Your task to perform on an android device: Check the weather Image 0: 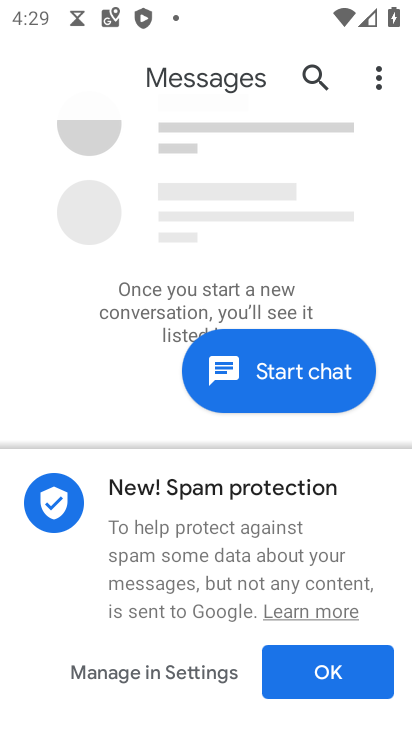
Step 0: press home button
Your task to perform on an android device: Check the weather Image 1: 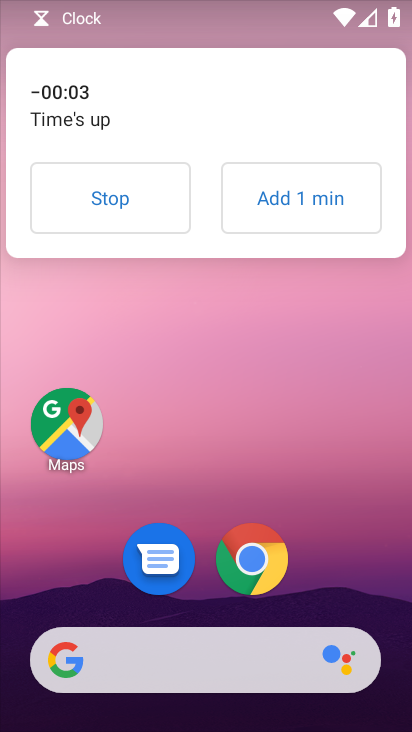
Step 1: click (280, 416)
Your task to perform on an android device: Check the weather Image 2: 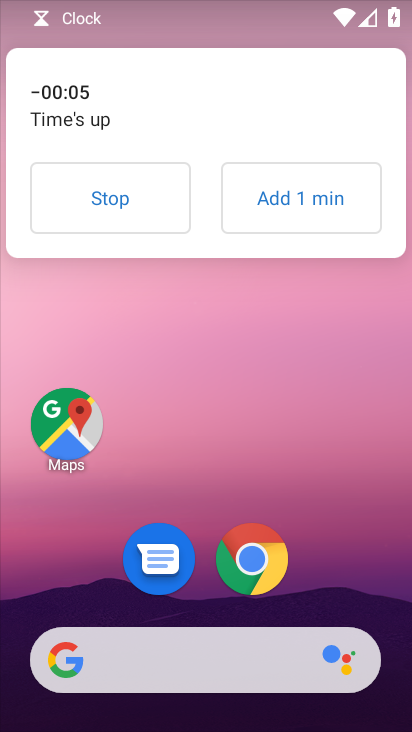
Step 2: click (59, 430)
Your task to perform on an android device: Check the weather Image 3: 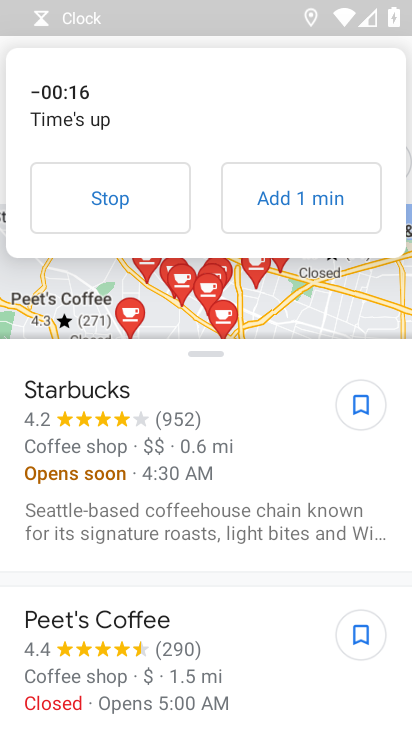
Step 3: click (119, 186)
Your task to perform on an android device: Check the weather Image 4: 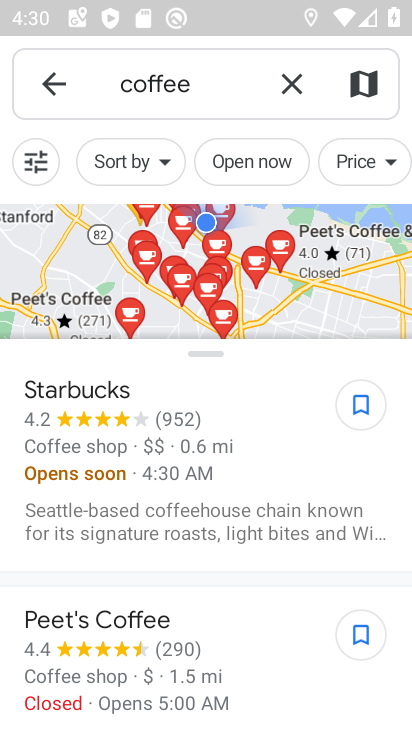
Step 4: press home button
Your task to perform on an android device: Check the weather Image 5: 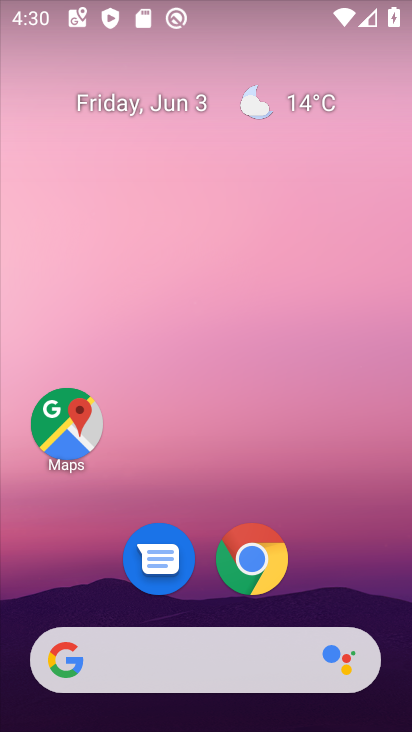
Step 5: click (244, 559)
Your task to perform on an android device: Check the weather Image 6: 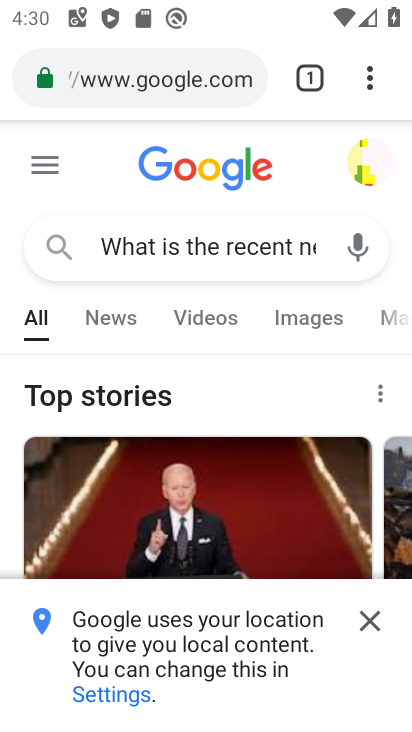
Step 6: click (198, 71)
Your task to perform on an android device: Check the weather Image 7: 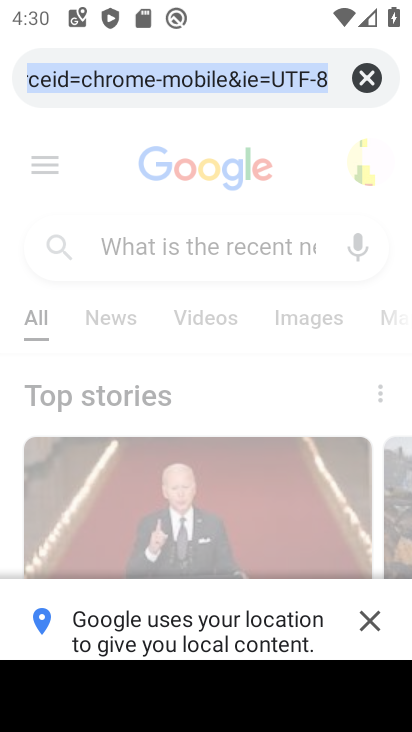
Step 7: click (370, 70)
Your task to perform on an android device: Check the weather Image 8: 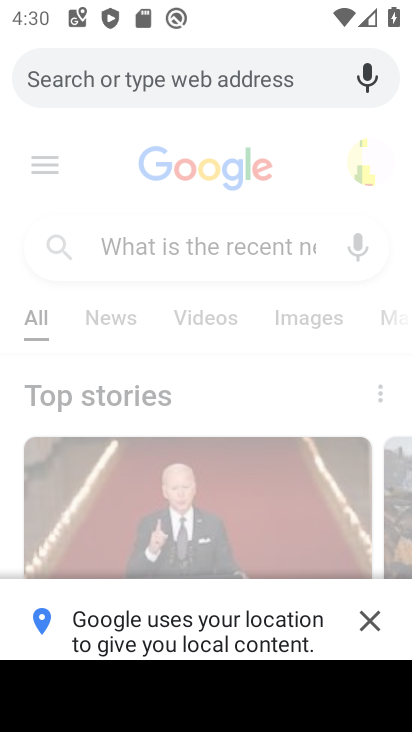
Step 8: type "Check the weather"
Your task to perform on an android device: Check the weather Image 9: 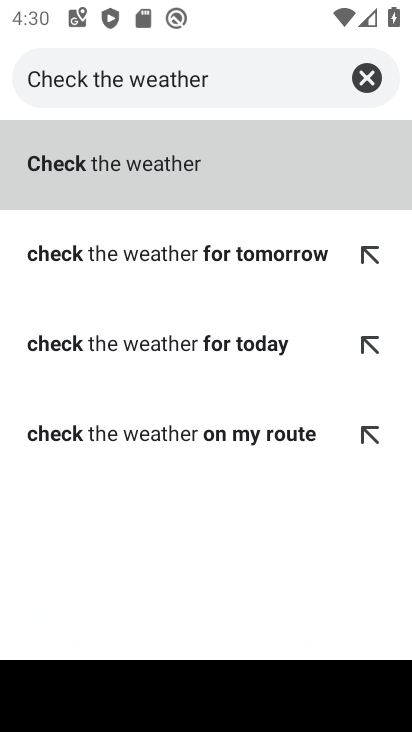
Step 9: click (162, 157)
Your task to perform on an android device: Check the weather Image 10: 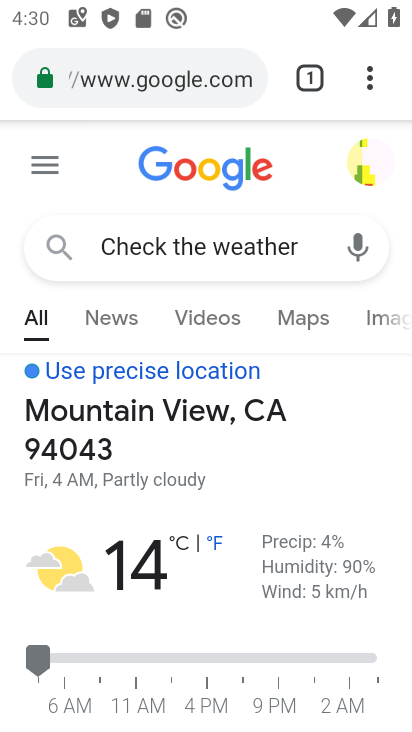
Step 10: task complete